Your task to perform on an android device: Show the shopping cart on bestbuy. Image 0: 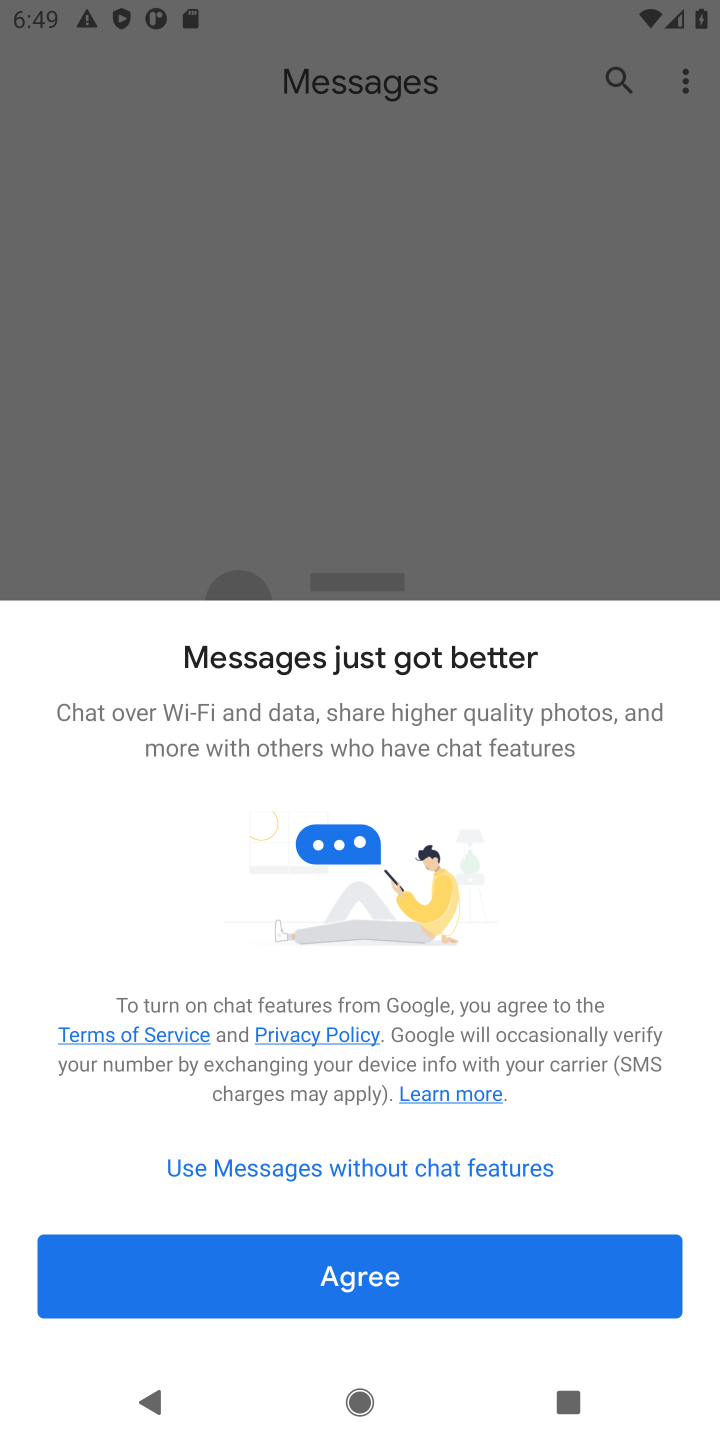
Step 0: click (159, 1313)
Your task to perform on an android device: Show the shopping cart on bestbuy. Image 1: 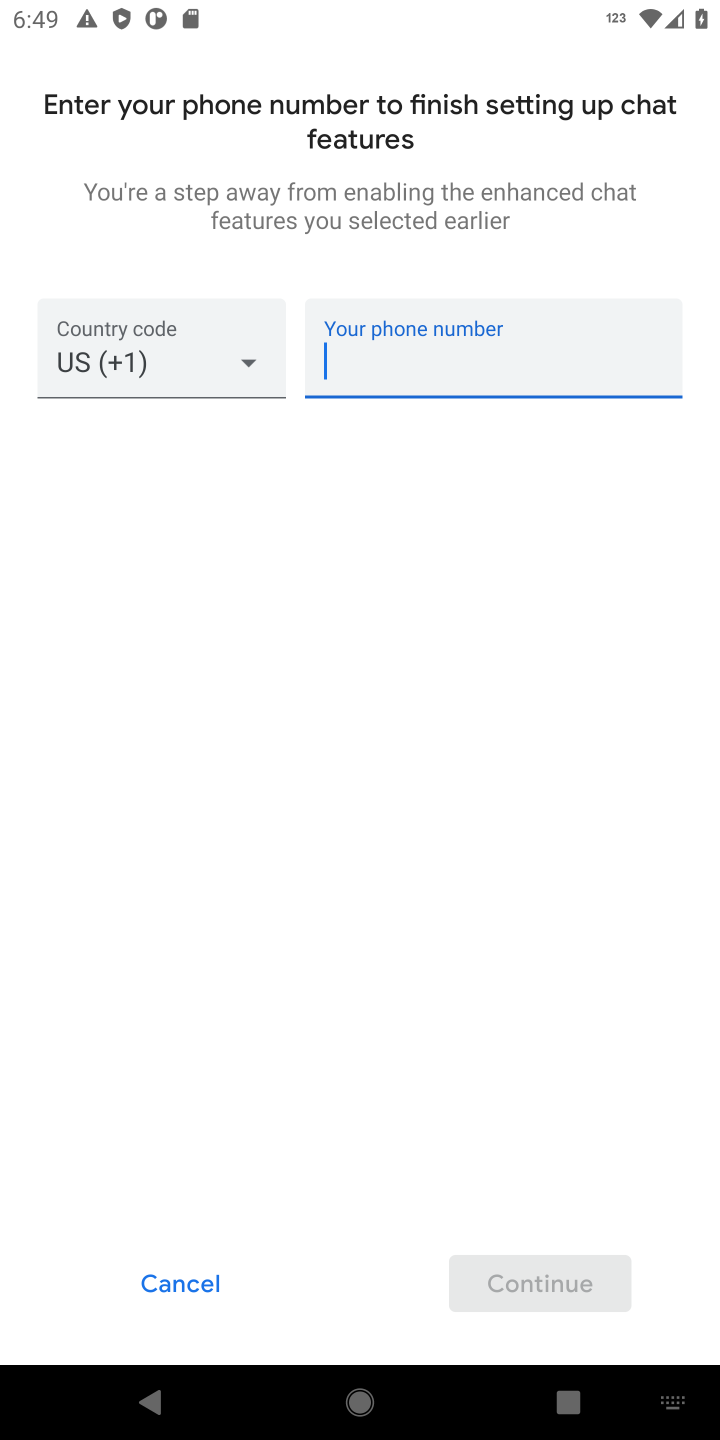
Step 1: press home button
Your task to perform on an android device: Show the shopping cart on bestbuy. Image 2: 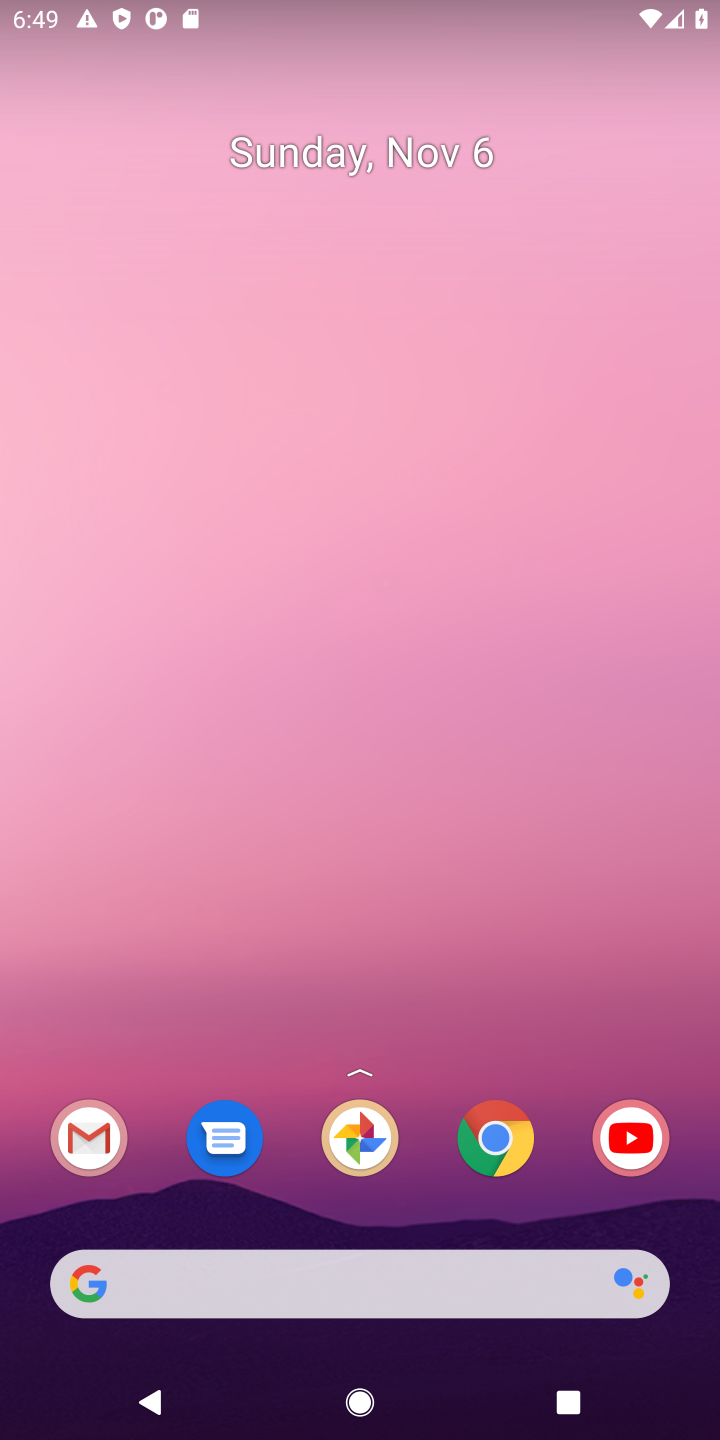
Step 2: click (511, 1139)
Your task to perform on an android device: Show the shopping cart on bestbuy. Image 3: 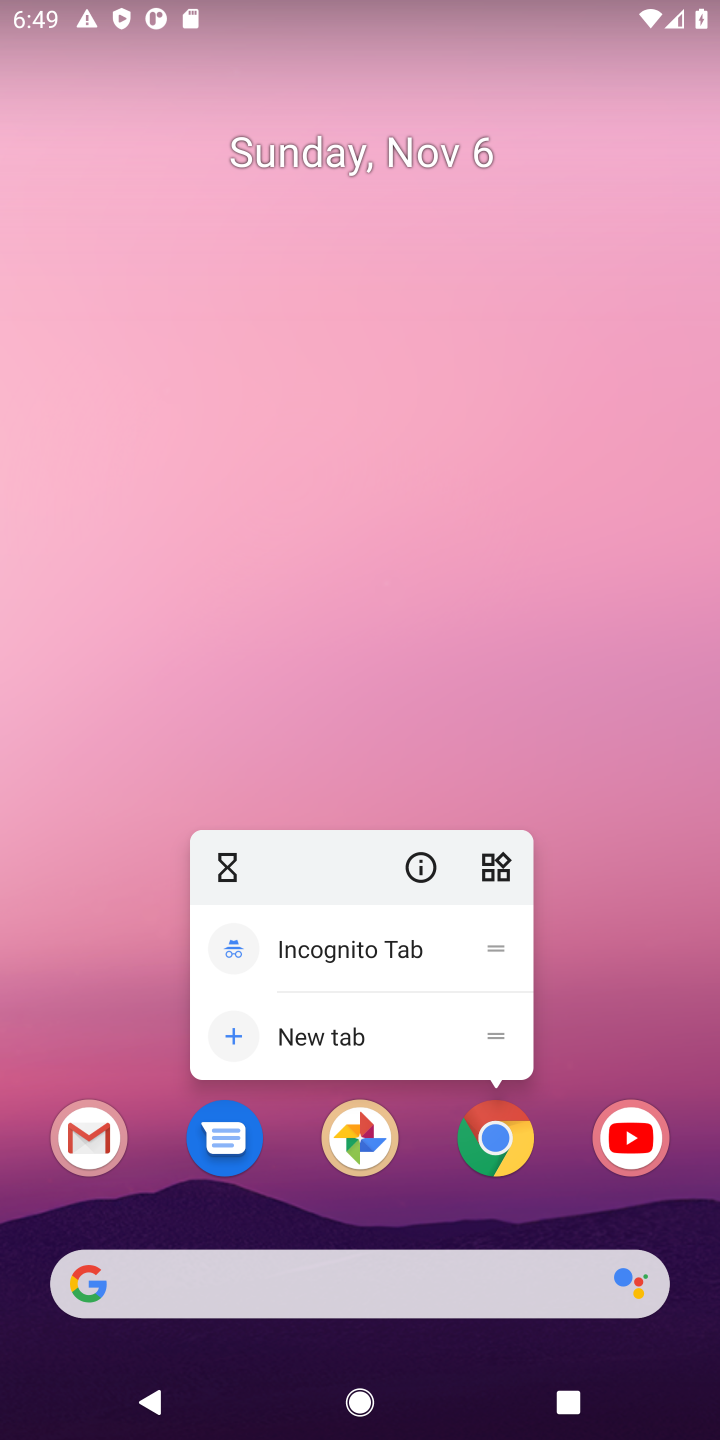
Step 3: click (511, 1139)
Your task to perform on an android device: Show the shopping cart on bestbuy. Image 4: 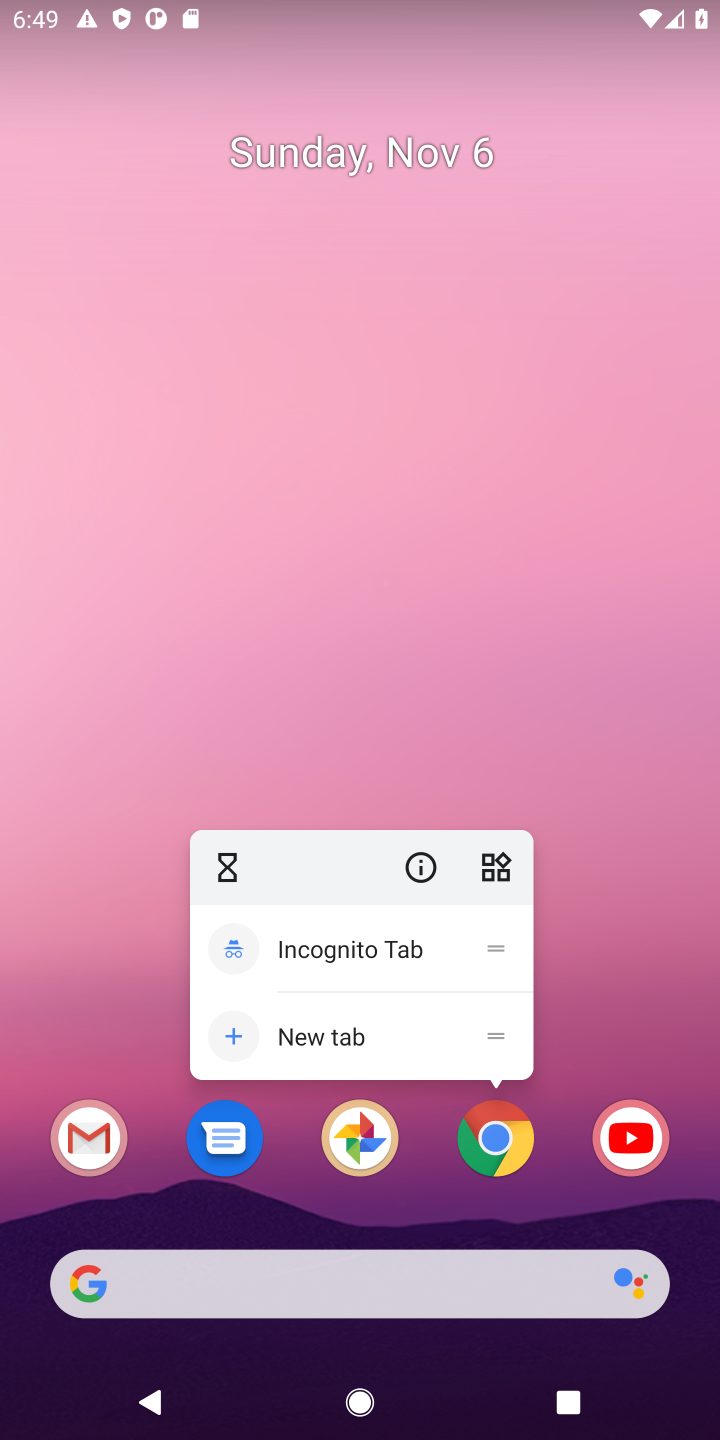
Step 4: click (502, 1137)
Your task to perform on an android device: Show the shopping cart on bestbuy. Image 5: 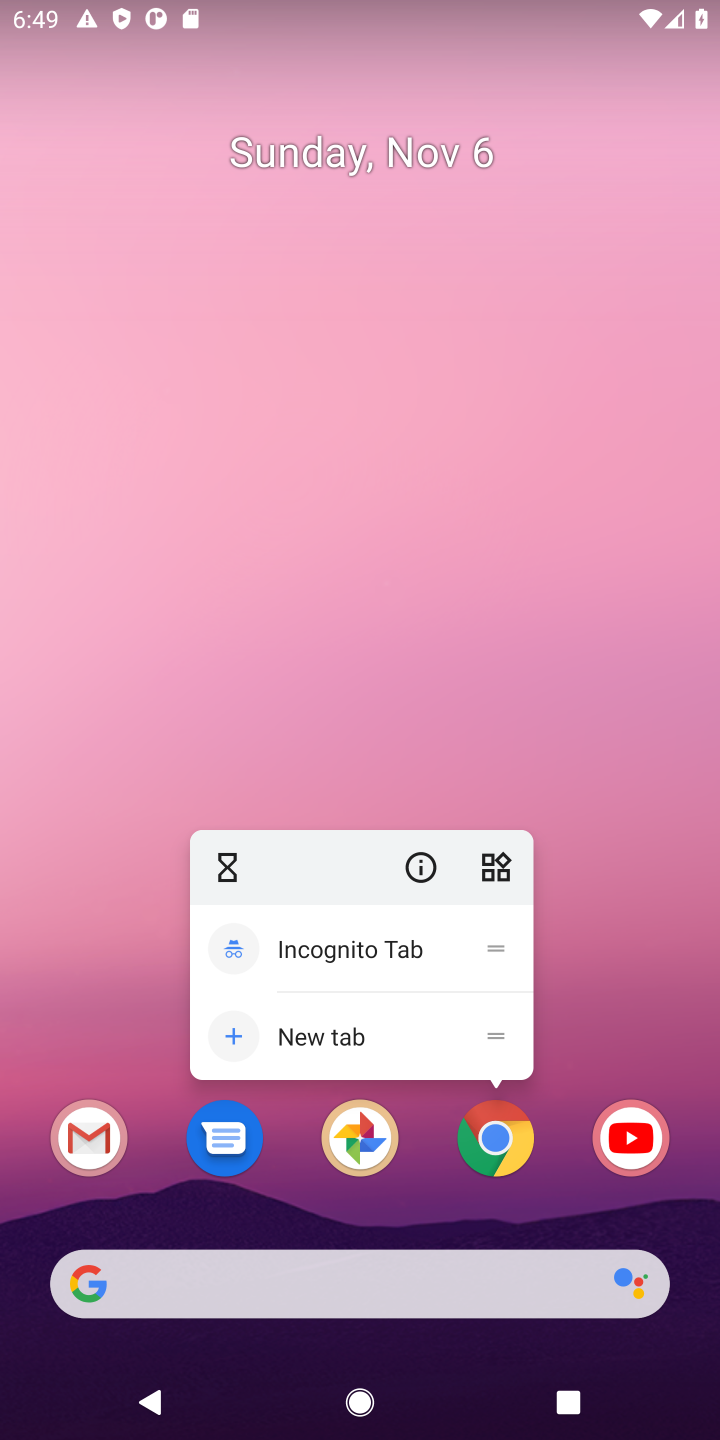
Step 5: click (483, 1150)
Your task to perform on an android device: Show the shopping cart on bestbuy. Image 6: 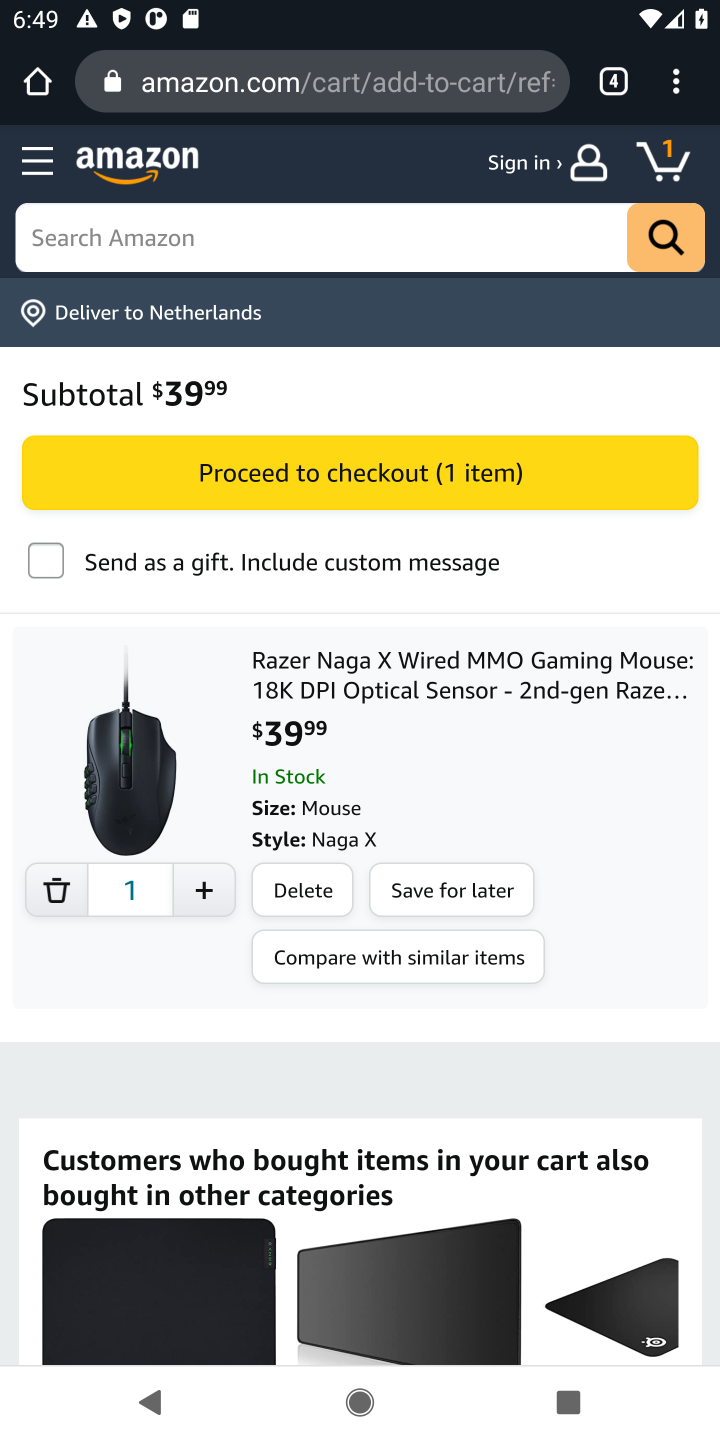
Step 6: click (625, 74)
Your task to perform on an android device: Show the shopping cart on bestbuy. Image 7: 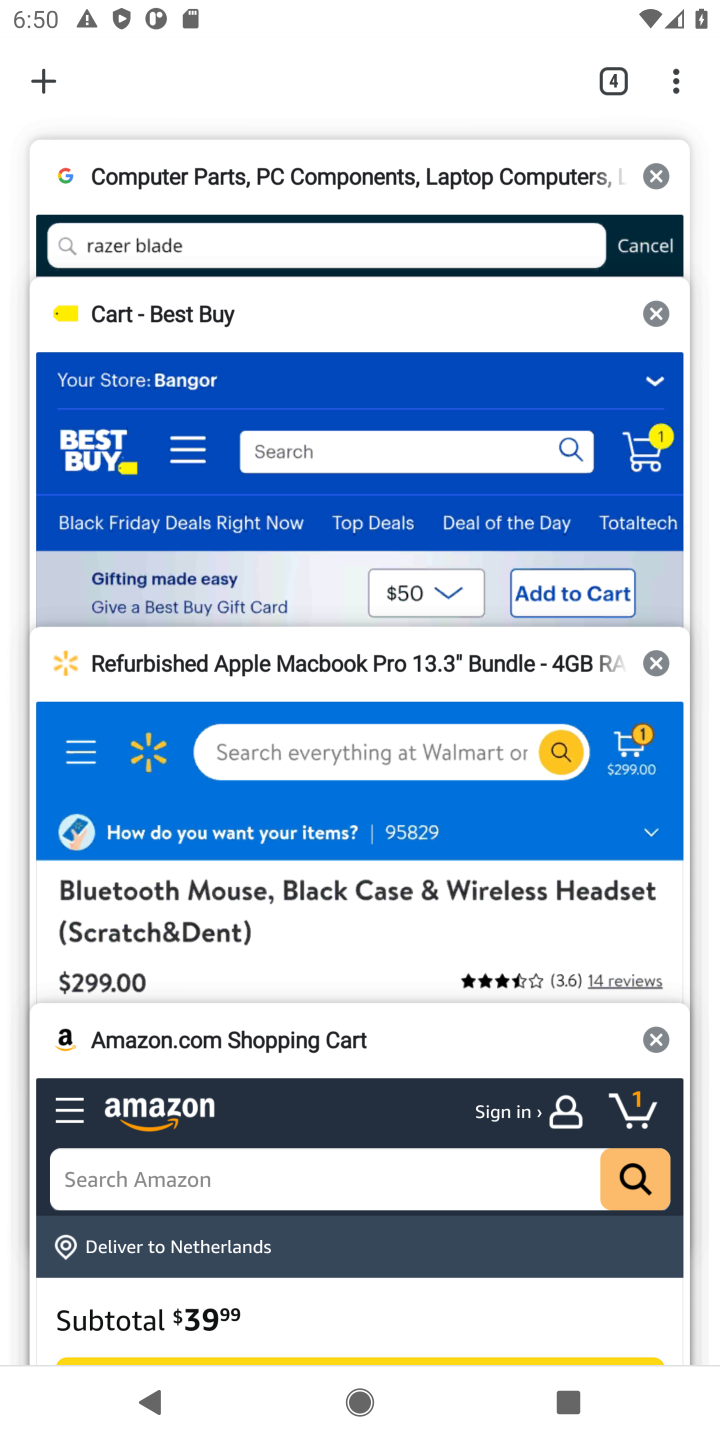
Step 7: click (211, 346)
Your task to perform on an android device: Show the shopping cart on bestbuy. Image 8: 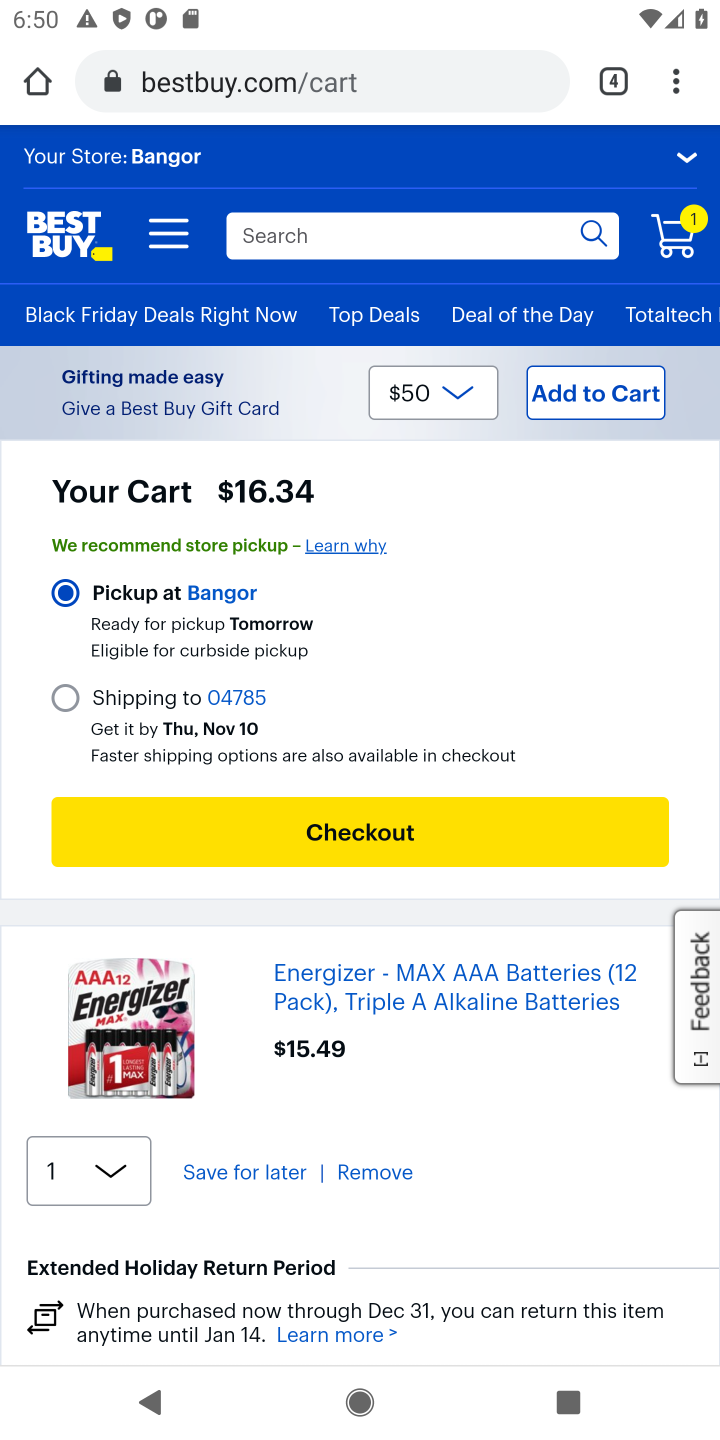
Step 8: click (673, 231)
Your task to perform on an android device: Show the shopping cart on bestbuy. Image 9: 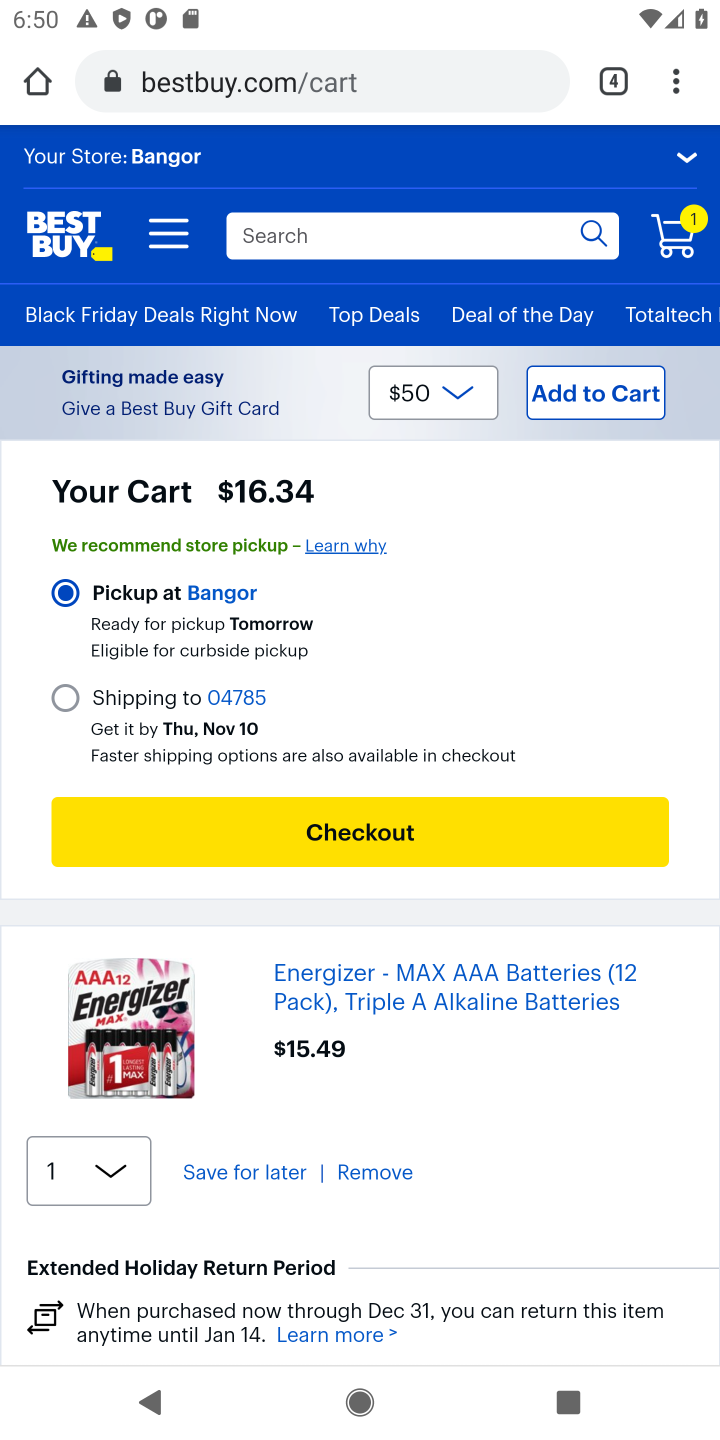
Step 9: task complete